Your task to perform on an android device: Search for sushi restaurants on Maps Image 0: 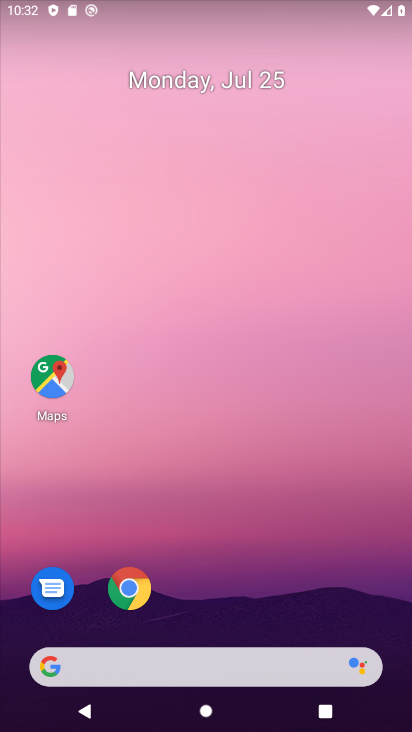
Step 0: click (54, 364)
Your task to perform on an android device: Search for sushi restaurants on Maps Image 1: 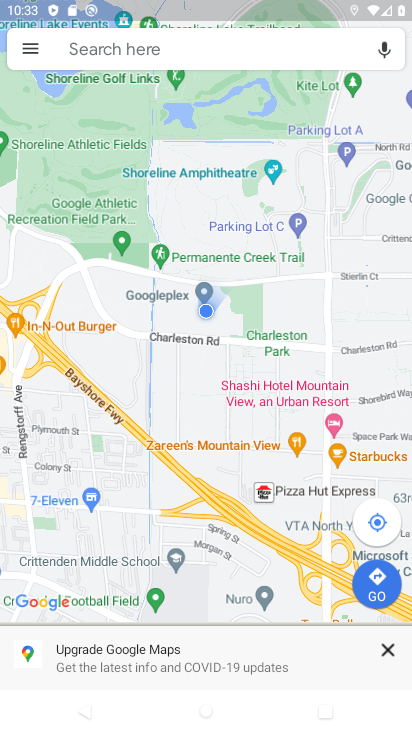
Step 1: click (185, 49)
Your task to perform on an android device: Search for sushi restaurants on Maps Image 2: 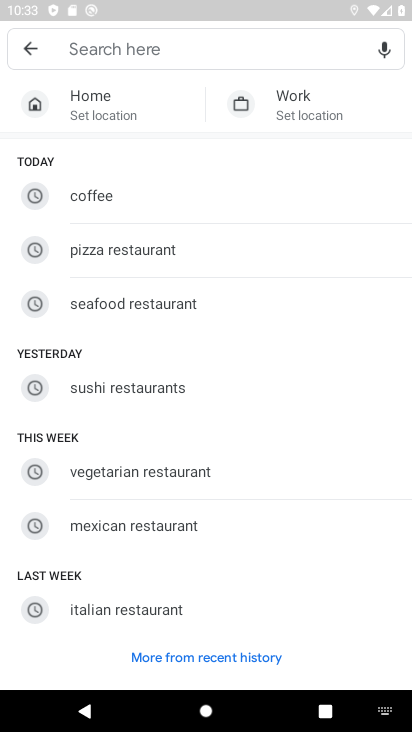
Step 2: click (157, 384)
Your task to perform on an android device: Search for sushi restaurants on Maps Image 3: 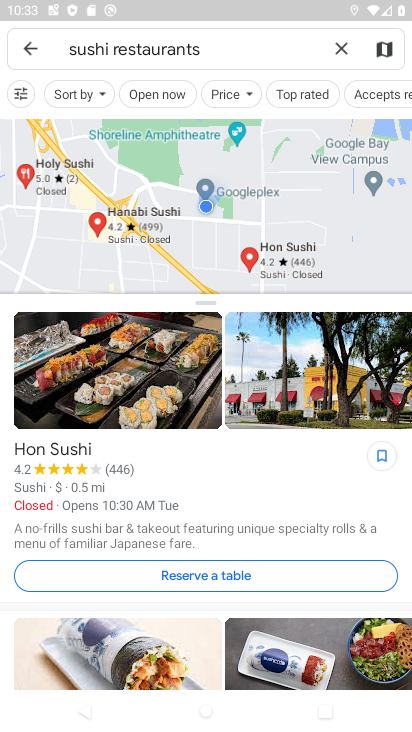
Step 3: task complete